Your task to perform on an android device: see sites visited before in the chrome app Image 0: 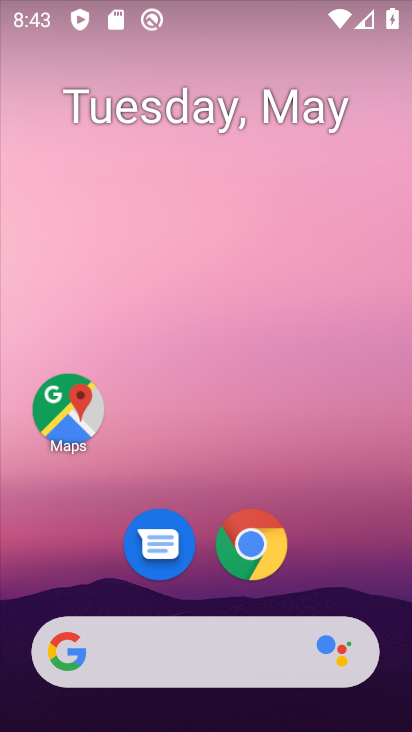
Step 0: drag from (368, 546) to (323, 221)
Your task to perform on an android device: see sites visited before in the chrome app Image 1: 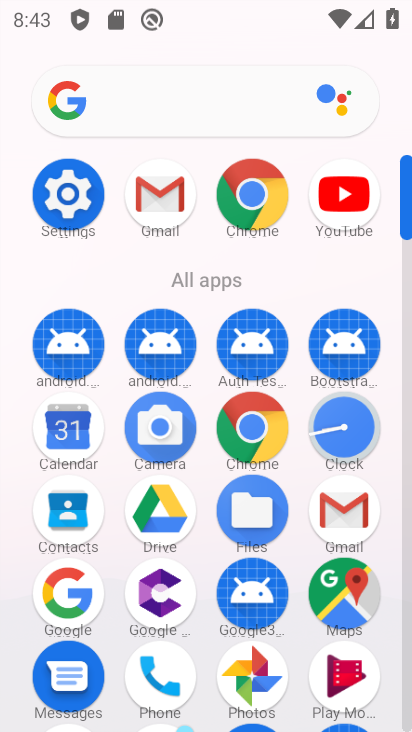
Step 1: click (268, 432)
Your task to perform on an android device: see sites visited before in the chrome app Image 2: 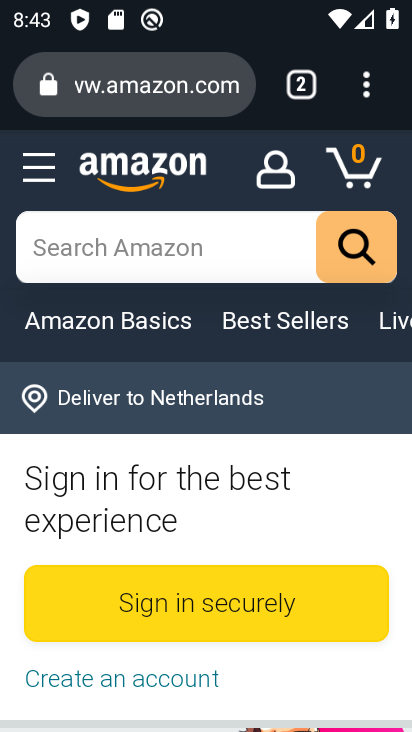
Step 2: task complete